Your task to perform on an android device: turn on the 12-hour format for clock Image 0: 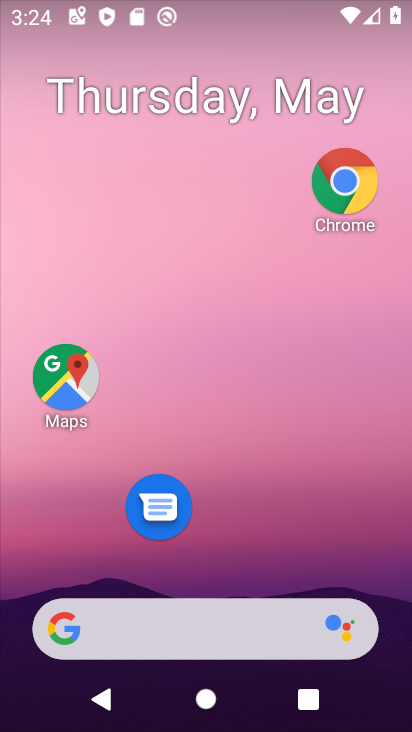
Step 0: drag from (254, 515) to (303, 61)
Your task to perform on an android device: turn on the 12-hour format for clock Image 1: 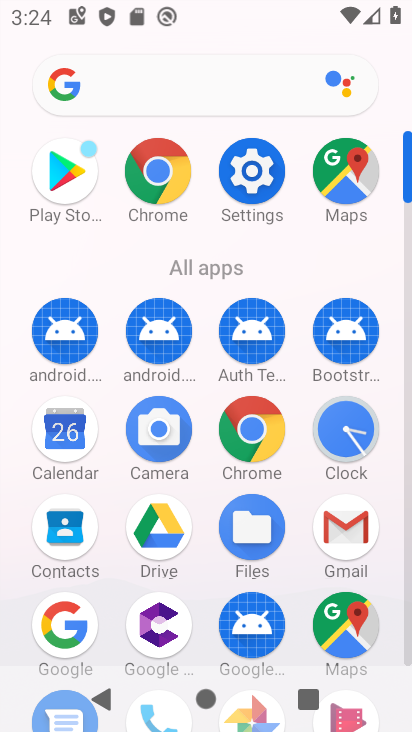
Step 1: click (352, 428)
Your task to perform on an android device: turn on the 12-hour format for clock Image 2: 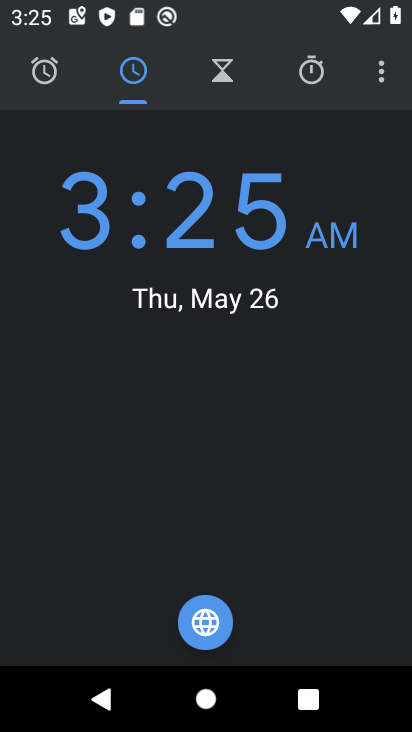
Step 2: click (382, 66)
Your task to perform on an android device: turn on the 12-hour format for clock Image 3: 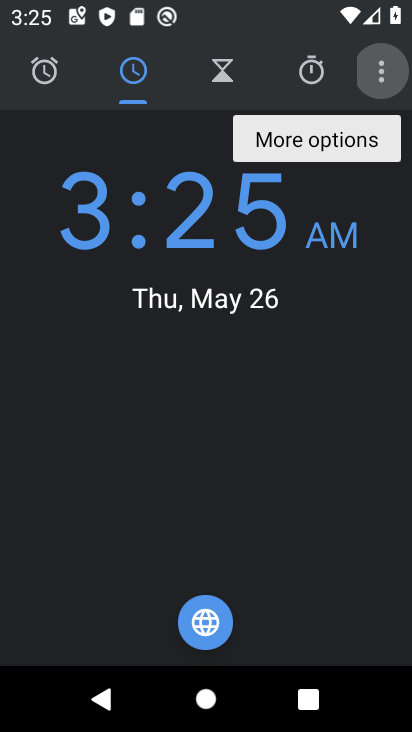
Step 3: click (382, 66)
Your task to perform on an android device: turn on the 12-hour format for clock Image 4: 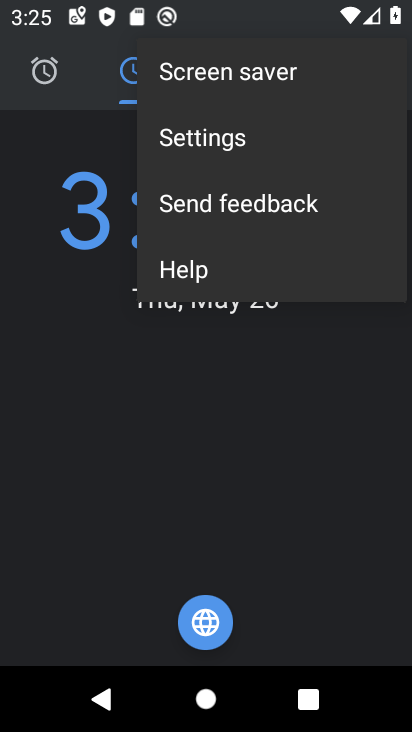
Step 4: click (221, 136)
Your task to perform on an android device: turn on the 12-hour format for clock Image 5: 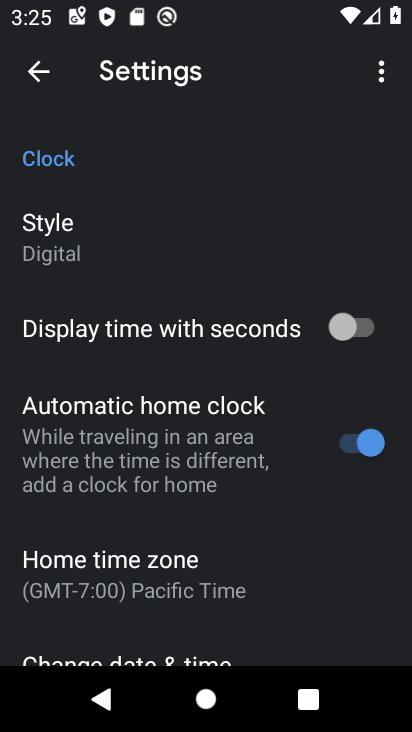
Step 5: drag from (312, 485) to (315, 210)
Your task to perform on an android device: turn on the 12-hour format for clock Image 6: 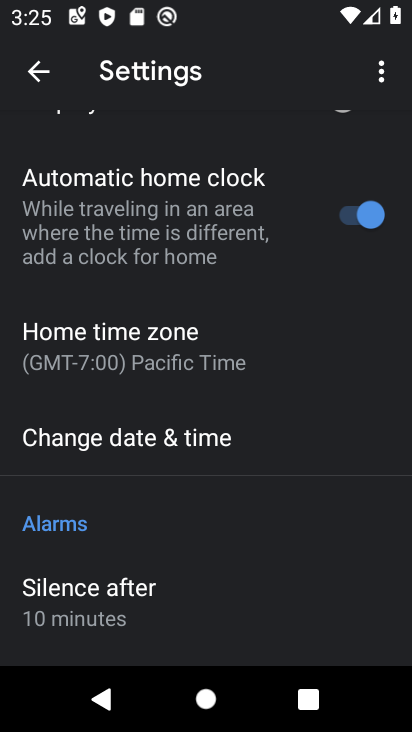
Step 6: click (201, 437)
Your task to perform on an android device: turn on the 12-hour format for clock Image 7: 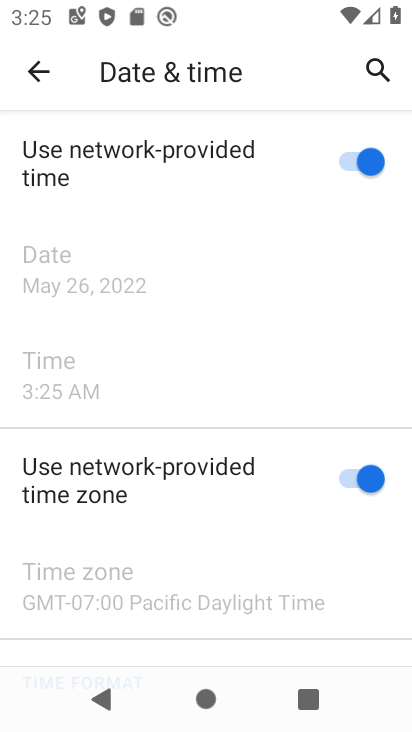
Step 7: task complete